Your task to perform on an android device: Open accessibility settings Image 0: 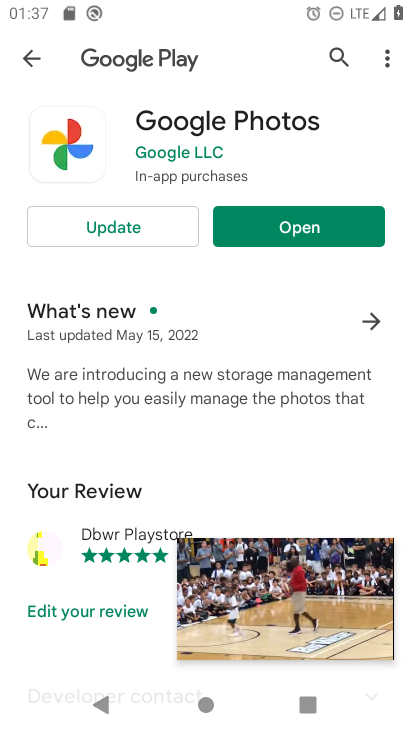
Step 0: click (342, 591)
Your task to perform on an android device: Open accessibility settings Image 1: 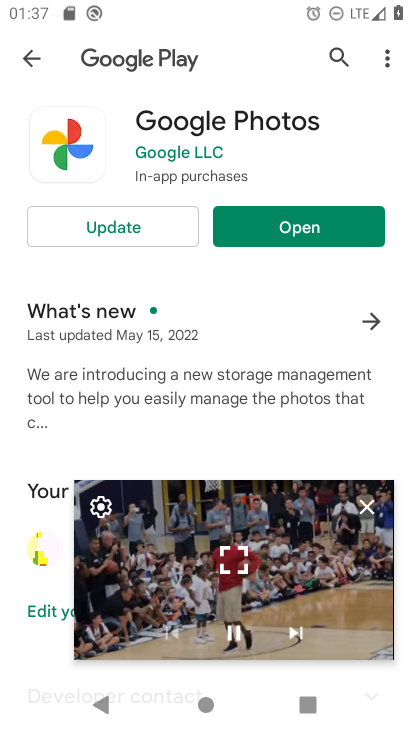
Step 1: click (360, 511)
Your task to perform on an android device: Open accessibility settings Image 2: 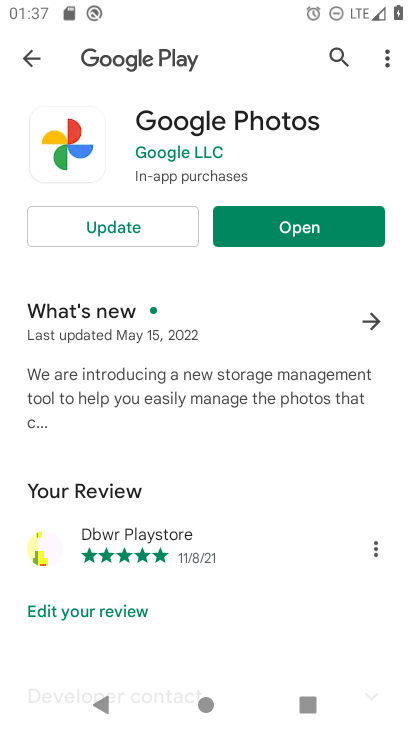
Step 2: press home button
Your task to perform on an android device: Open accessibility settings Image 3: 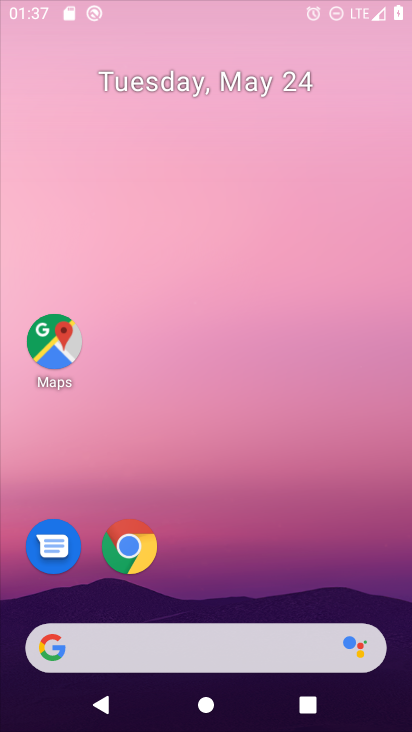
Step 3: drag from (262, 640) to (186, 23)
Your task to perform on an android device: Open accessibility settings Image 4: 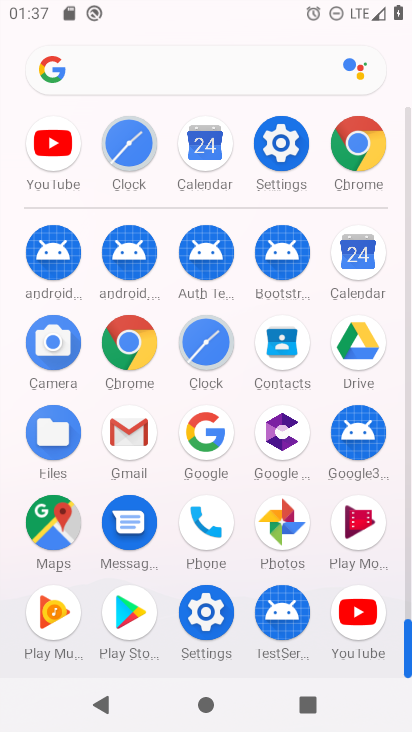
Step 4: click (278, 137)
Your task to perform on an android device: Open accessibility settings Image 5: 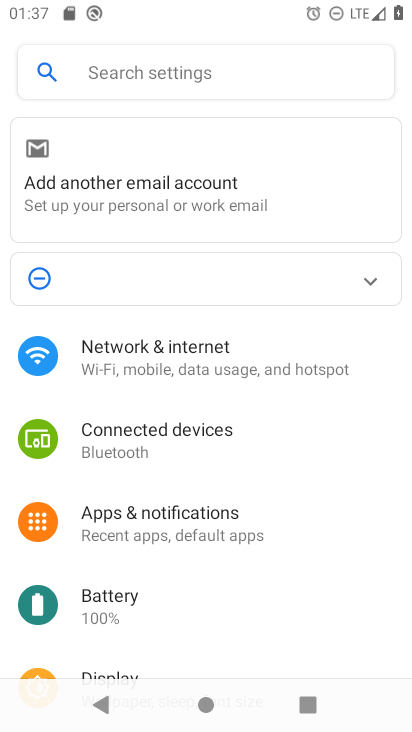
Step 5: drag from (179, 631) to (229, 103)
Your task to perform on an android device: Open accessibility settings Image 6: 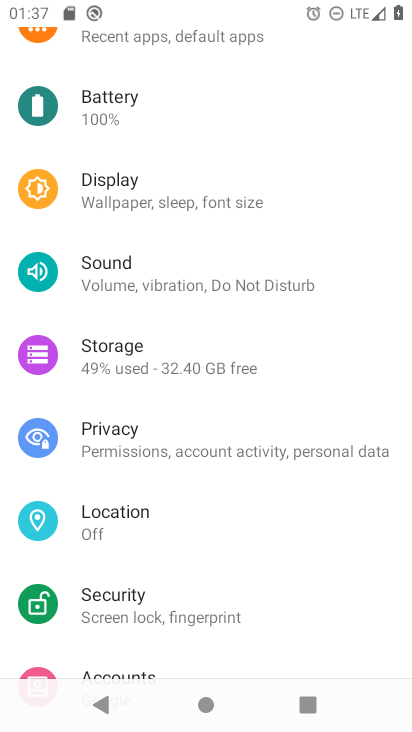
Step 6: drag from (181, 633) to (206, 244)
Your task to perform on an android device: Open accessibility settings Image 7: 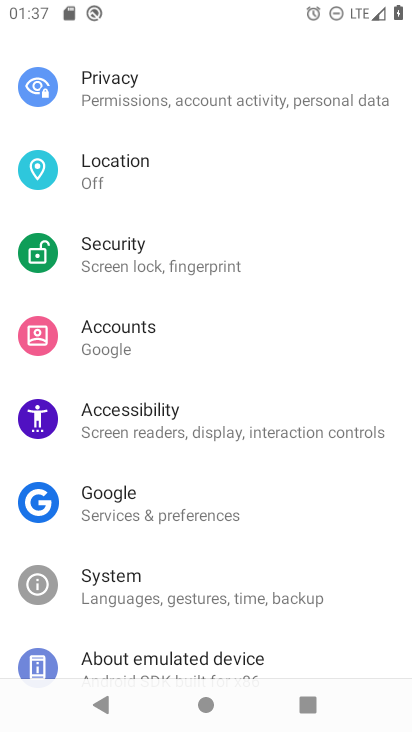
Step 7: click (142, 429)
Your task to perform on an android device: Open accessibility settings Image 8: 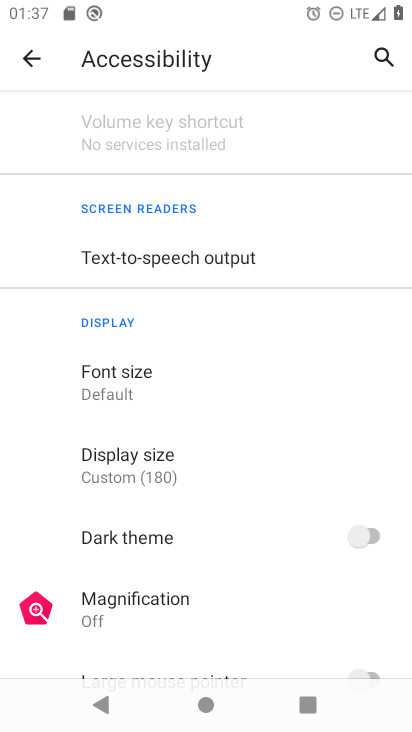
Step 8: task complete